Your task to perform on an android device: change keyboard looks Image 0: 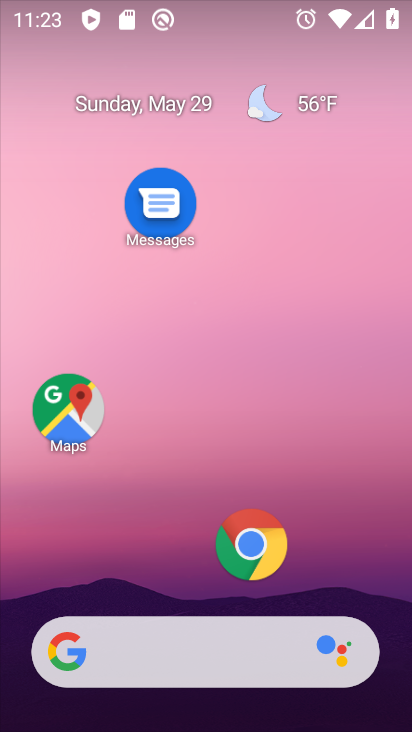
Step 0: drag from (196, 589) to (224, 9)
Your task to perform on an android device: change keyboard looks Image 1: 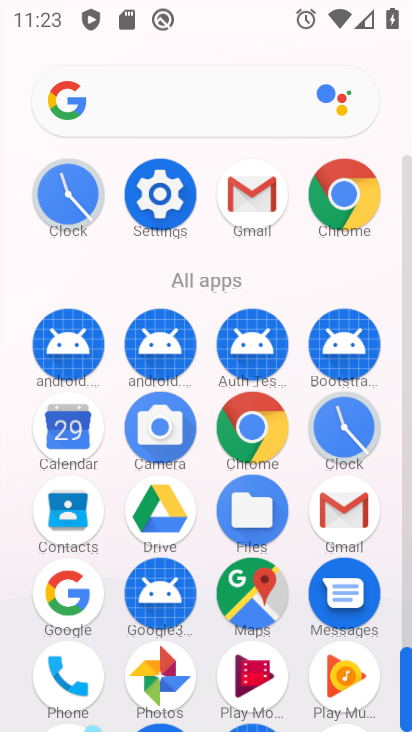
Step 1: click (159, 190)
Your task to perform on an android device: change keyboard looks Image 2: 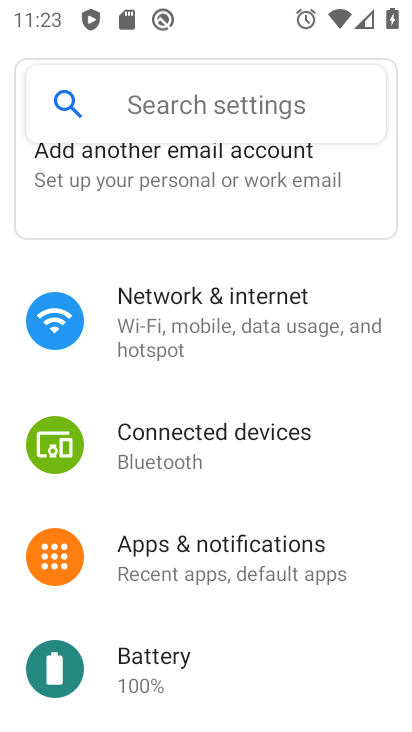
Step 2: drag from (223, 647) to (256, 121)
Your task to perform on an android device: change keyboard looks Image 3: 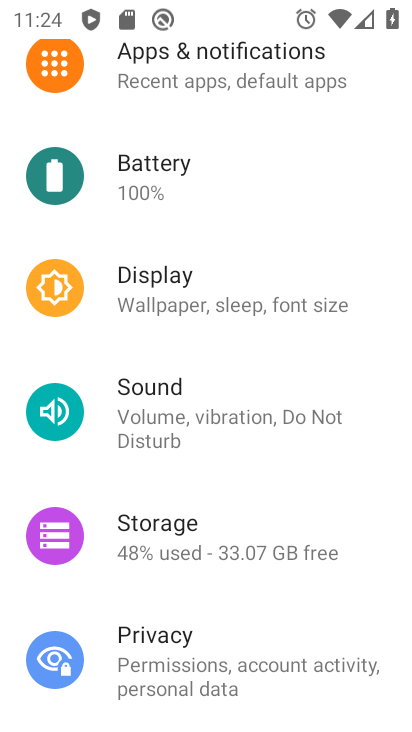
Step 3: drag from (210, 635) to (213, 130)
Your task to perform on an android device: change keyboard looks Image 4: 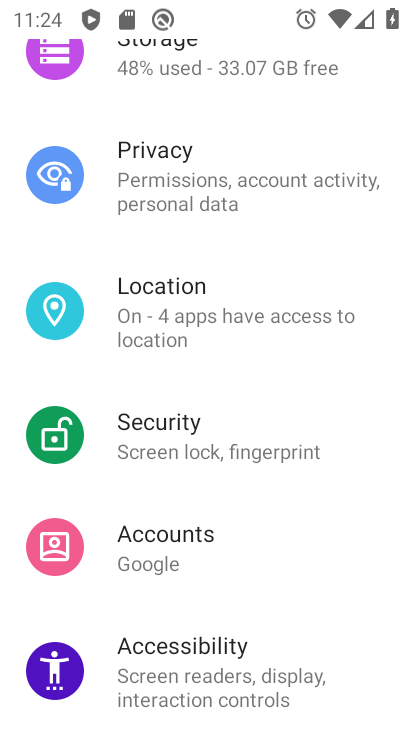
Step 4: drag from (192, 666) to (215, 323)
Your task to perform on an android device: change keyboard looks Image 5: 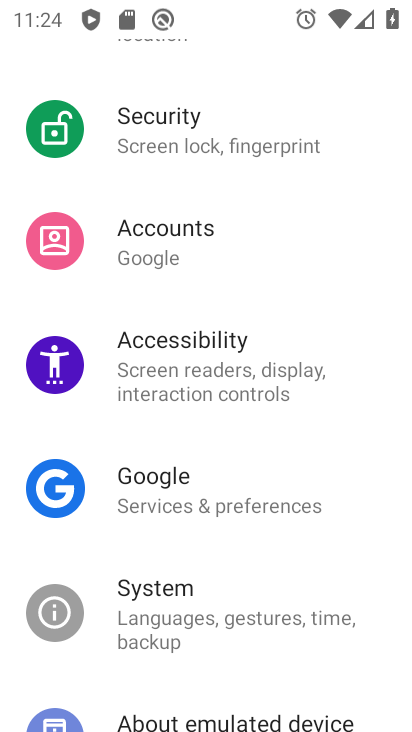
Step 5: click (202, 612)
Your task to perform on an android device: change keyboard looks Image 6: 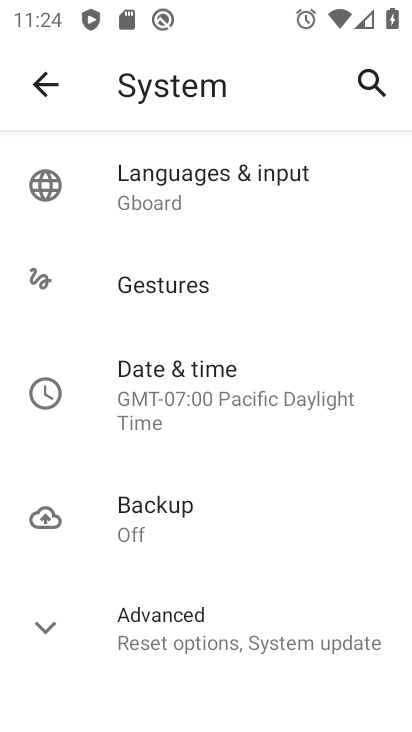
Step 6: click (124, 177)
Your task to perform on an android device: change keyboard looks Image 7: 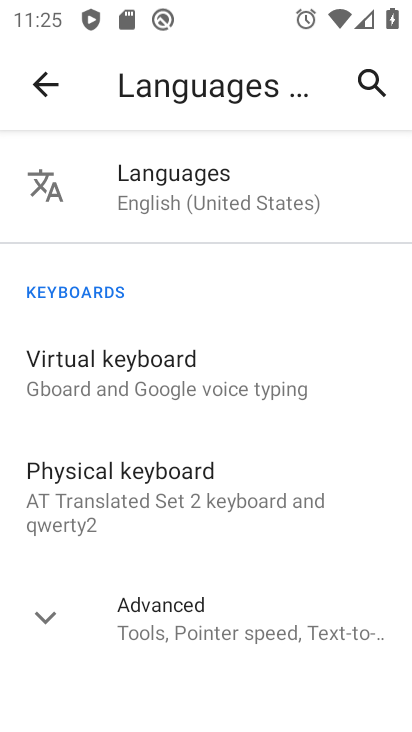
Step 7: click (111, 383)
Your task to perform on an android device: change keyboard looks Image 8: 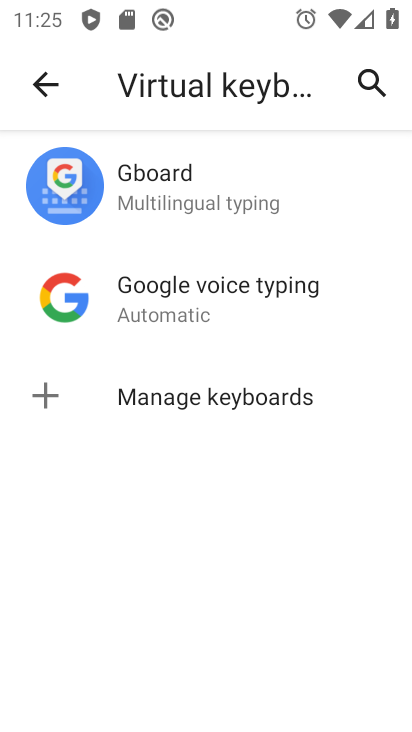
Step 8: click (138, 194)
Your task to perform on an android device: change keyboard looks Image 9: 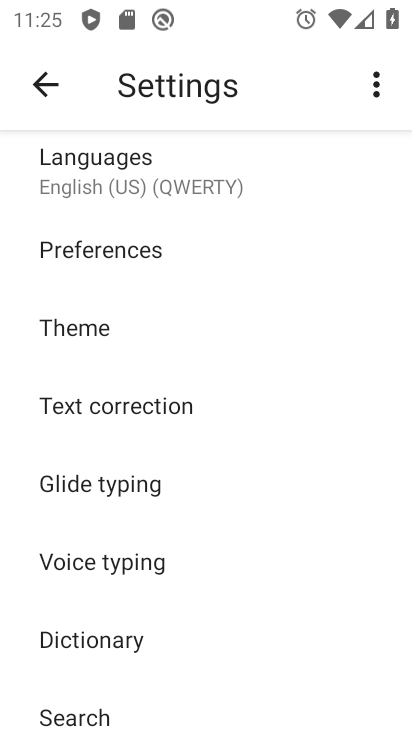
Step 9: click (115, 321)
Your task to perform on an android device: change keyboard looks Image 10: 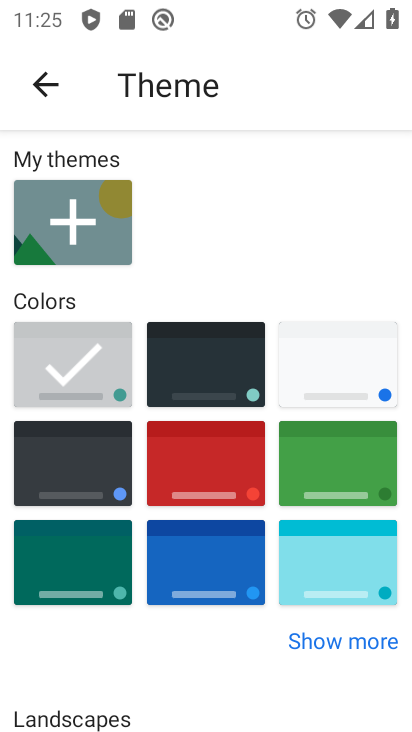
Step 10: click (225, 475)
Your task to perform on an android device: change keyboard looks Image 11: 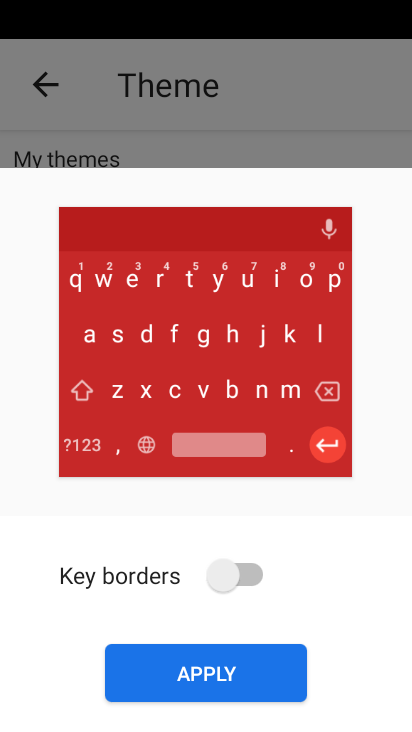
Step 11: click (215, 679)
Your task to perform on an android device: change keyboard looks Image 12: 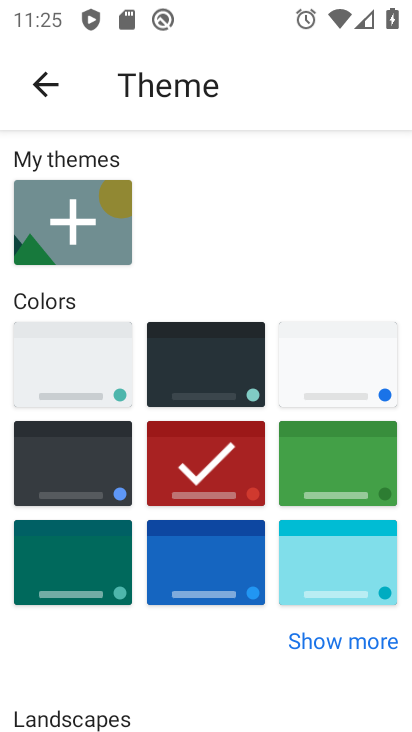
Step 12: task complete